Your task to perform on an android device: Search for vegetarian restaurants on Maps Image 0: 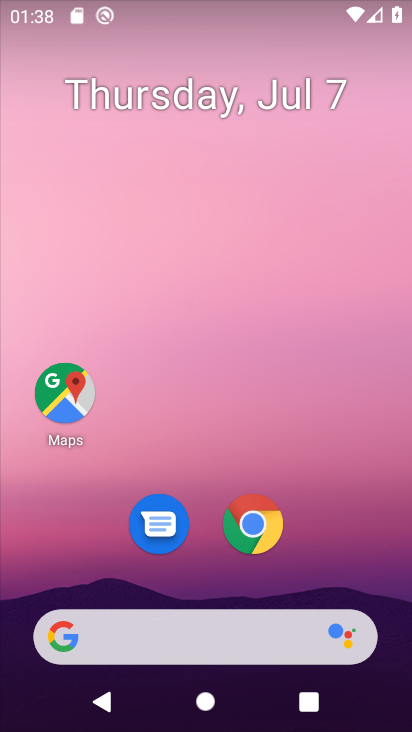
Step 0: click (70, 392)
Your task to perform on an android device: Search for vegetarian restaurants on Maps Image 1: 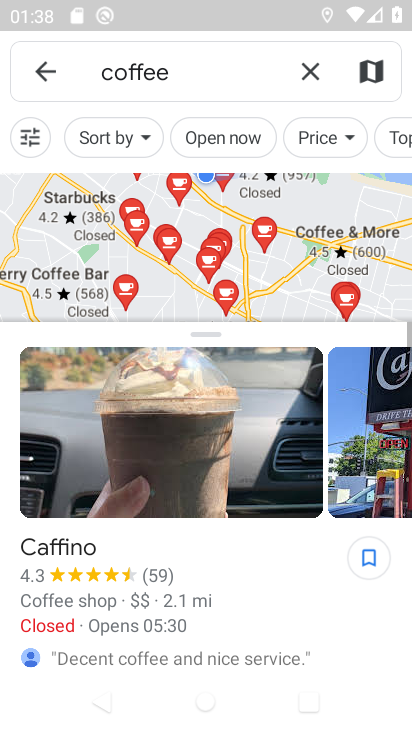
Step 1: click (312, 65)
Your task to perform on an android device: Search for vegetarian restaurants on Maps Image 2: 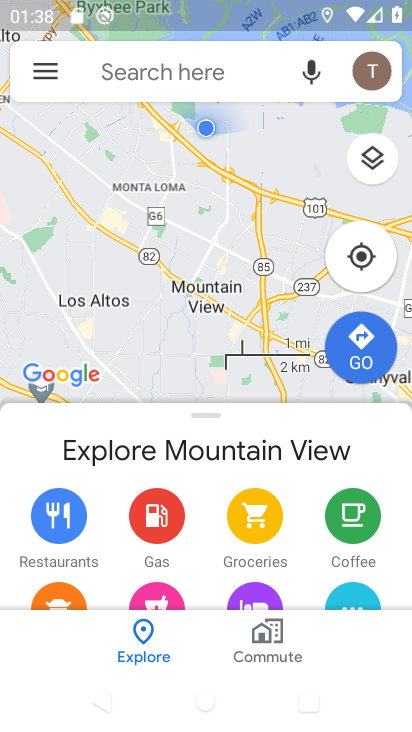
Step 2: click (165, 65)
Your task to perform on an android device: Search for vegetarian restaurants on Maps Image 3: 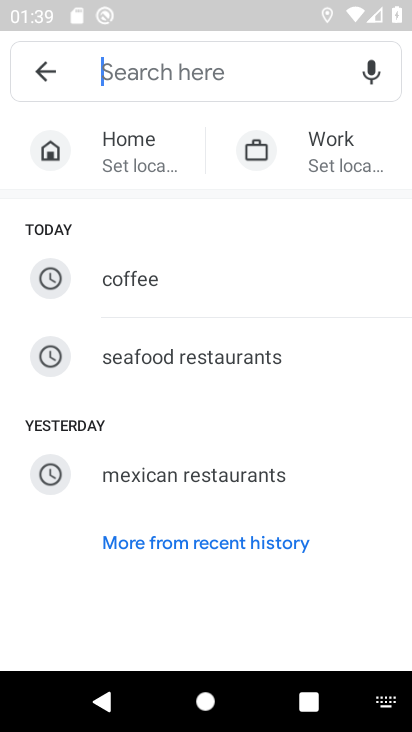
Step 3: type "vetarian reataurants"
Your task to perform on an android device: Search for vegetarian restaurants on Maps Image 4: 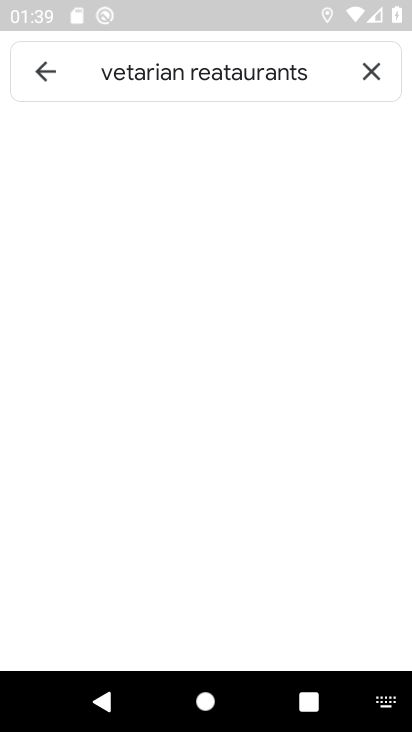
Step 4: click (50, 66)
Your task to perform on an android device: Search for vegetarian restaurants on Maps Image 5: 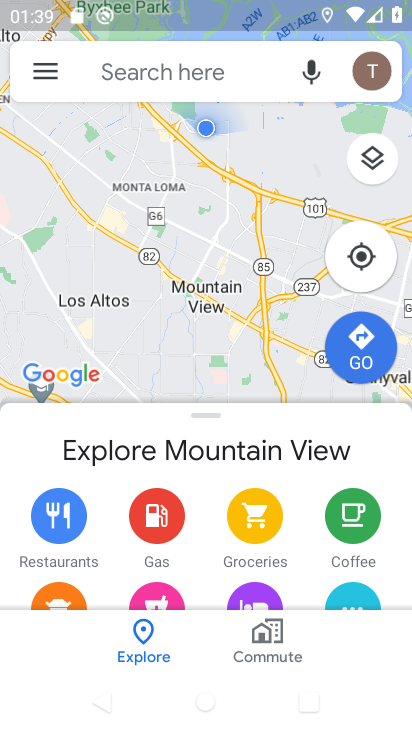
Step 5: click (219, 75)
Your task to perform on an android device: Search for vegetarian restaurants on Maps Image 6: 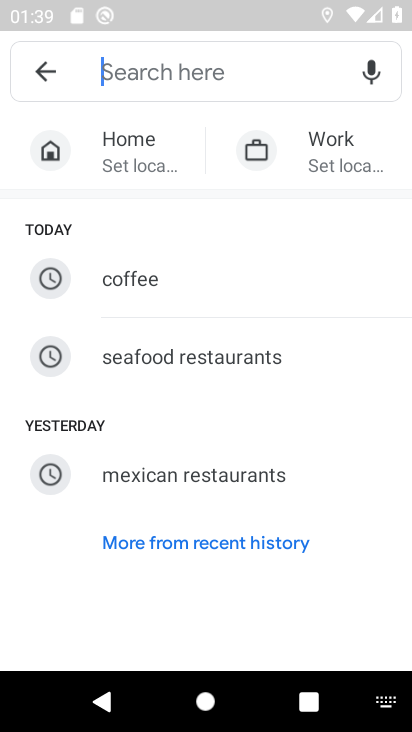
Step 6: type "vegitarian restaurants"
Your task to perform on an android device: Search for vegetarian restaurants on Maps Image 7: 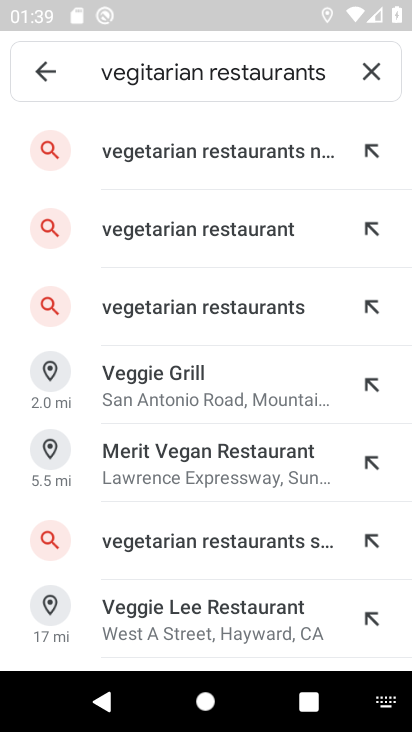
Step 7: click (184, 307)
Your task to perform on an android device: Search for vegetarian restaurants on Maps Image 8: 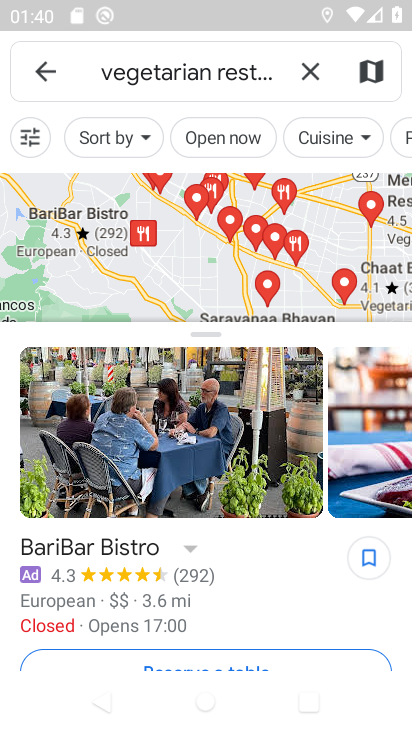
Step 8: task complete